Your task to perform on an android device: When is my next meeting? Image 0: 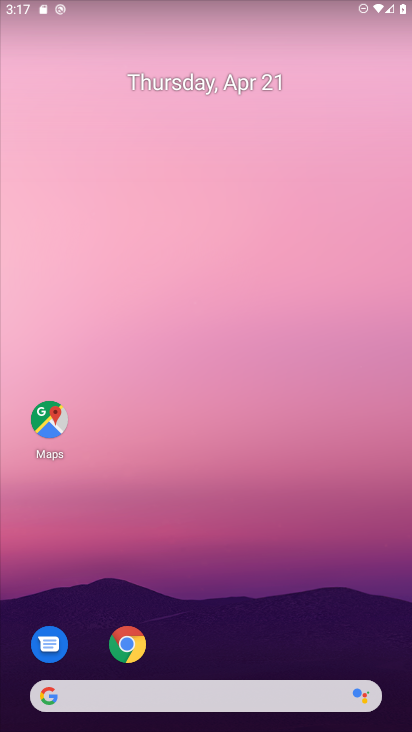
Step 0: drag from (347, 242) to (350, 116)
Your task to perform on an android device: When is my next meeting? Image 1: 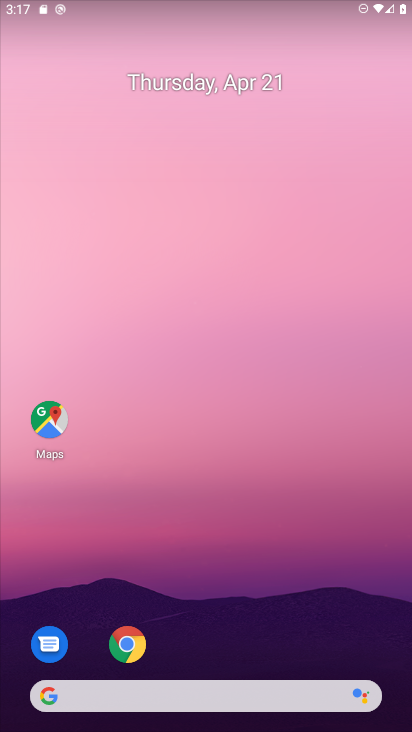
Step 1: drag from (260, 589) to (330, 180)
Your task to perform on an android device: When is my next meeting? Image 2: 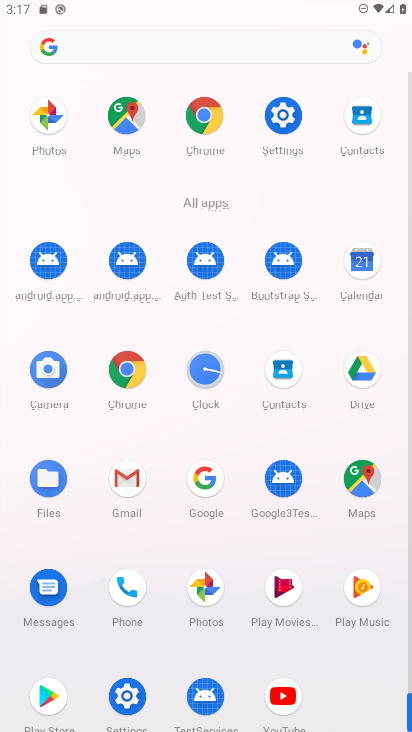
Step 2: click (349, 266)
Your task to perform on an android device: When is my next meeting? Image 3: 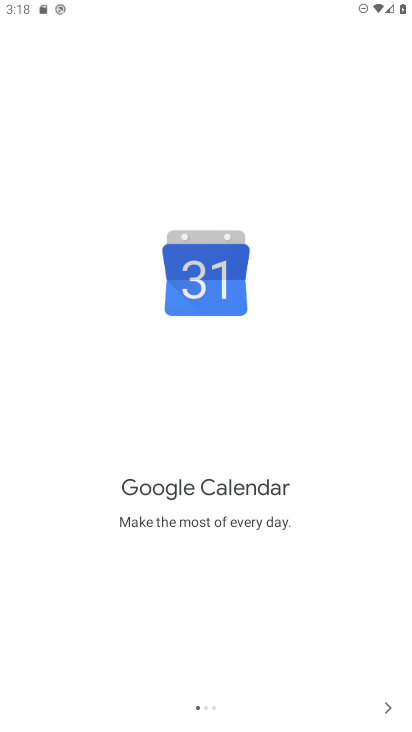
Step 3: click (388, 703)
Your task to perform on an android device: When is my next meeting? Image 4: 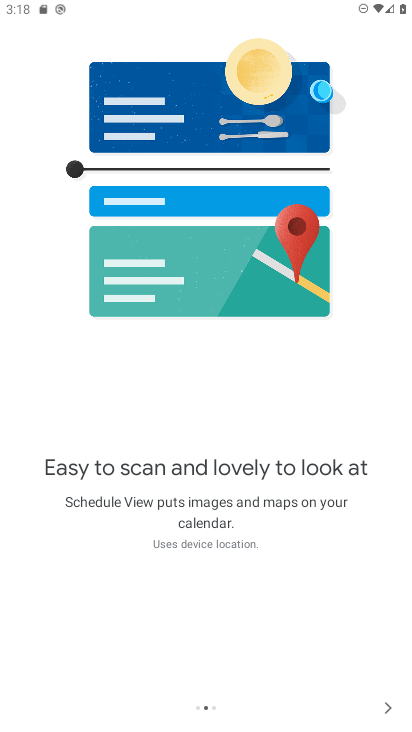
Step 4: click (382, 706)
Your task to perform on an android device: When is my next meeting? Image 5: 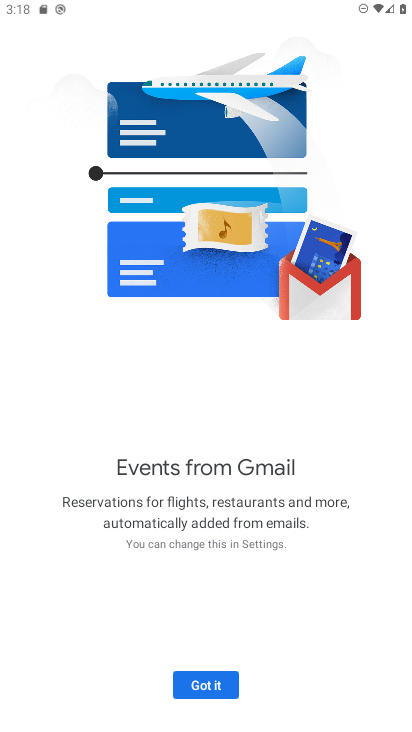
Step 5: click (200, 686)
Your task to perform on an android device: When is my next meeting? Image 6: 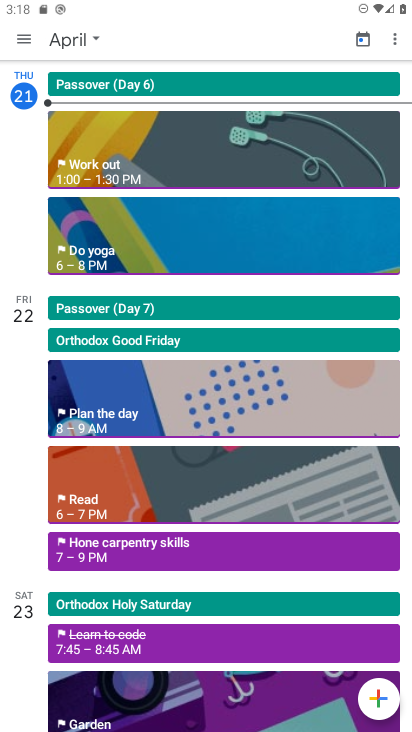
Step 6: click (23, 11)
Your task to perform on an android device: When is my next meeting? Image 7: 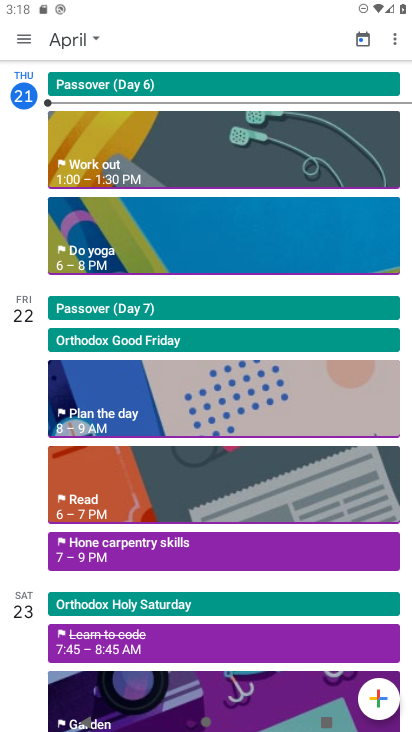
Step 7: drag from (25, 7) to (0, 102)
Your task to perform on an android device: When is my next meeting? Image 8: 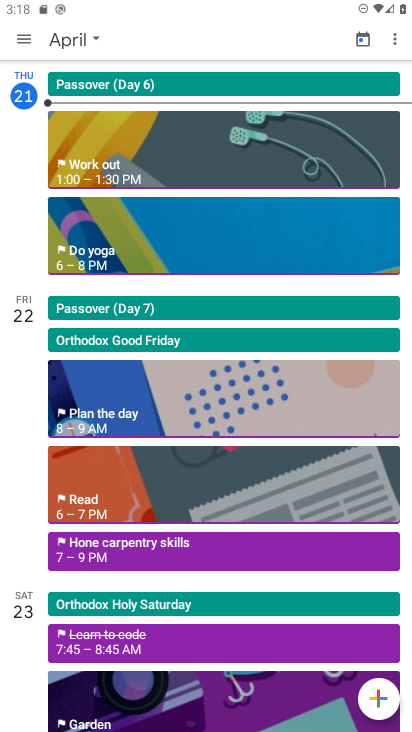
Step 8: click (23, 33)
Your task to perform on an android device: When is my next meeting? Image 9: 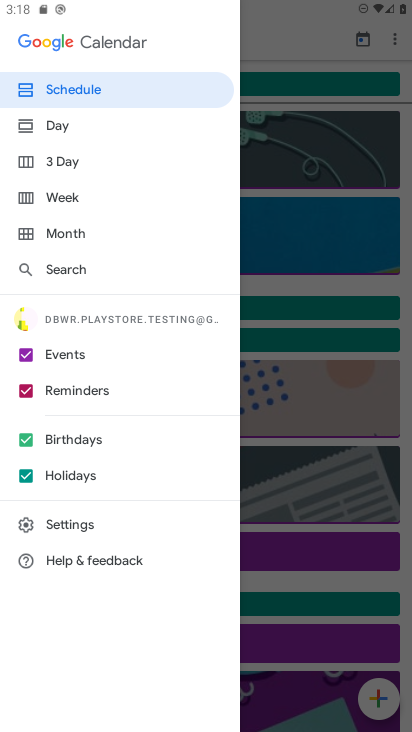
Step 9: click (81, 361)
Your task to perform on an android device: When is my next meeting? Image 10: 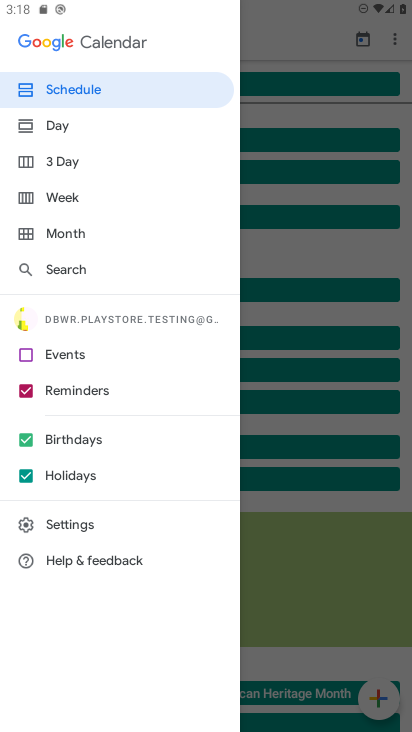
Step 10: click (25, 389)
Your task to perform on an android device: When is my next meeting? Image 11: 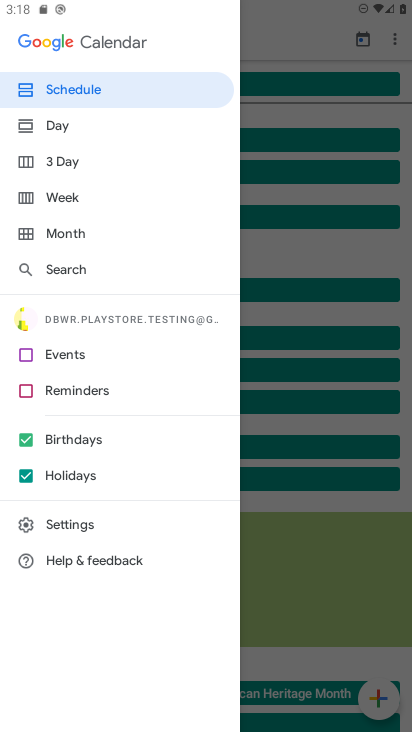
Step 11: click (31, 440)
Your task to perform on an android device: When is my next meeting? Image 12: 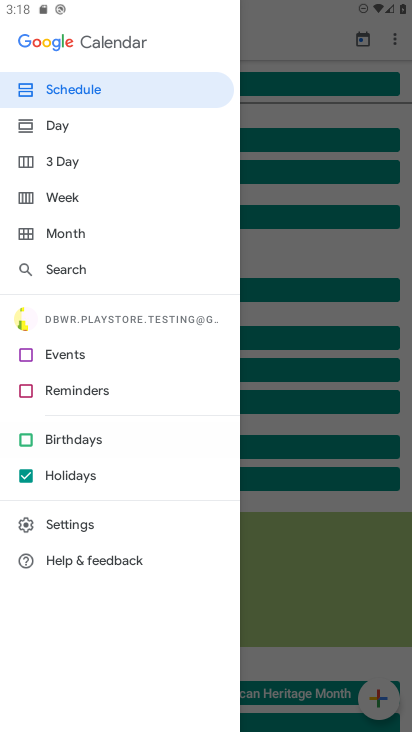
Step 12: click (21, 476)
Your task to perform on an android device: When is my next meeting? Image 13: 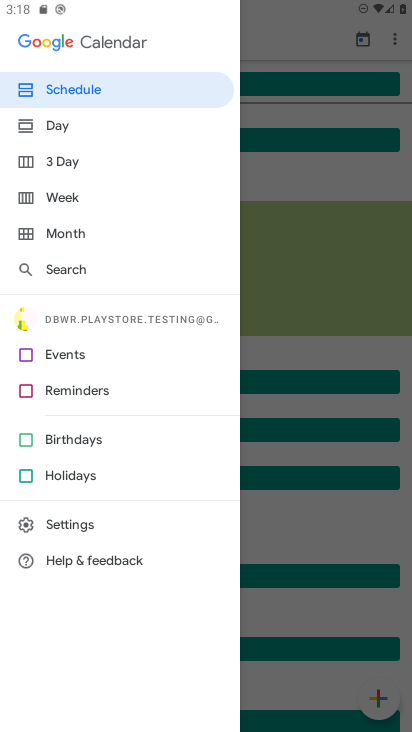
Step 13: click (29, 351)
Your task to perform on an android device: When is my next meeting? Image 14: 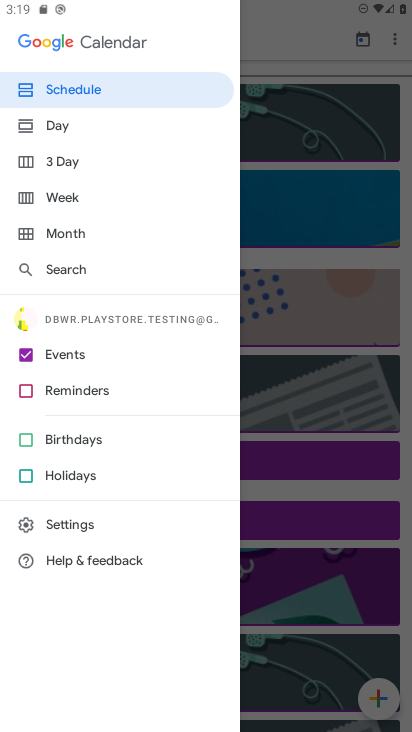
Step 14: click (133, 633)
Your task to perform on an android device: When is my next meeting? Image 15: 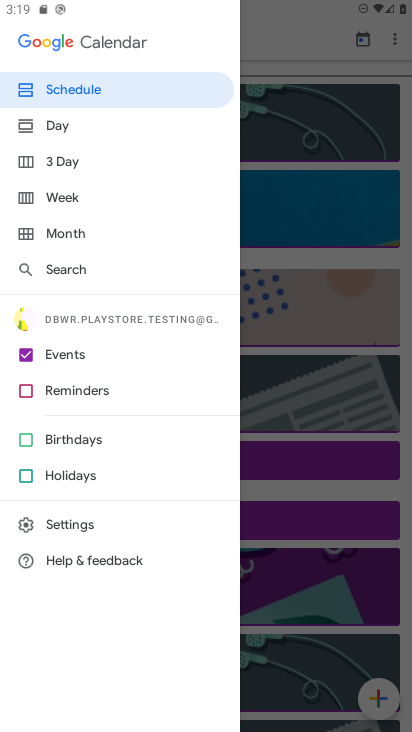
Step 15: click (310, 24)
Your task to perform on an android device: When is my next meeting? Image 16: 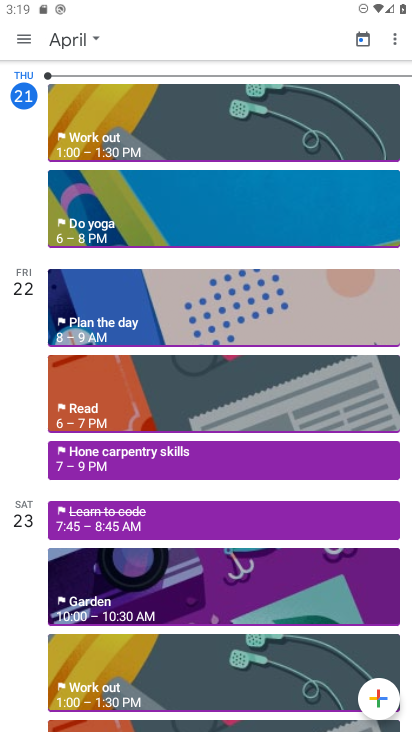
Step 16: task complete